Your task to perform on an android device: Clear the shopping cart on walmart.com. Add "razer blade" to the cart on walmart.com, then select checkout. Image 0: 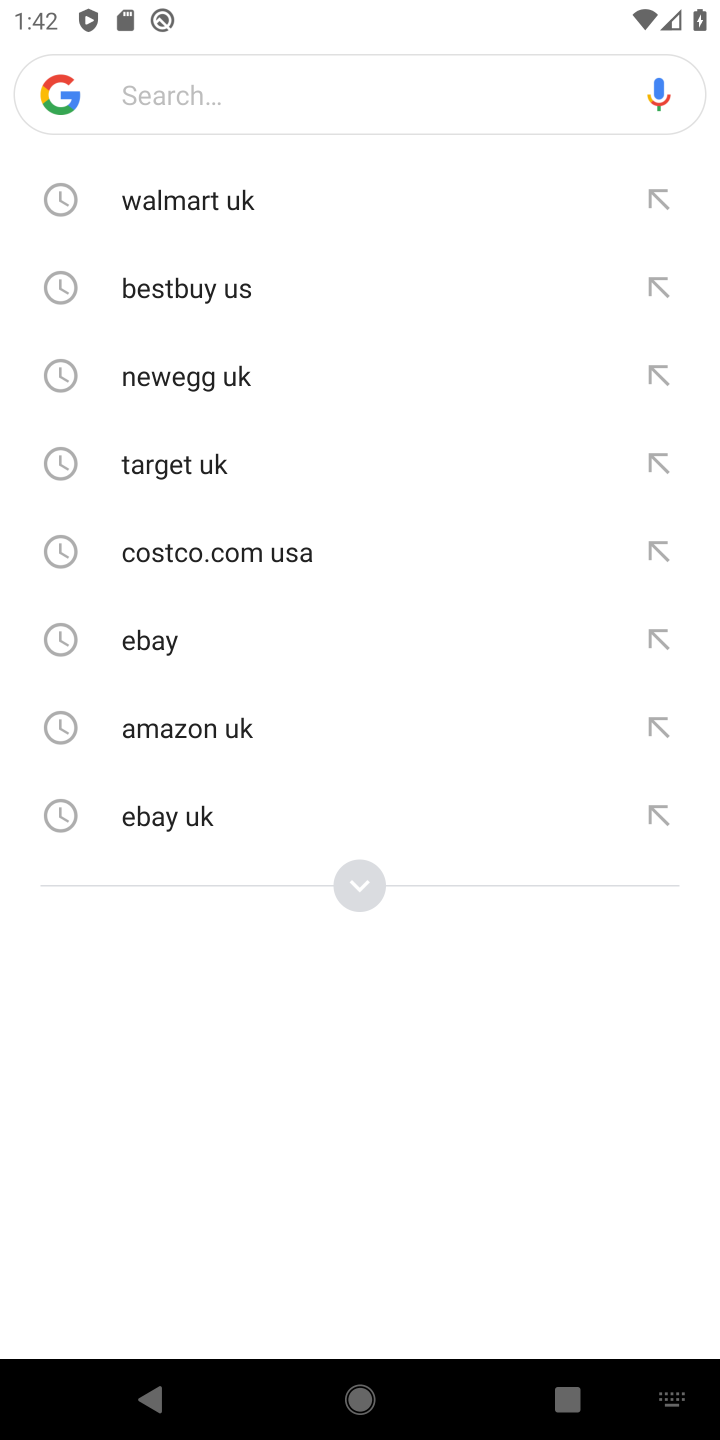
Step 0: click (239, 185)
Your task to perform on an android device: Clear the shopping cart on walmart.com. Add "razer blade" to the cart on walmart.com, then select checkout. Image 1: 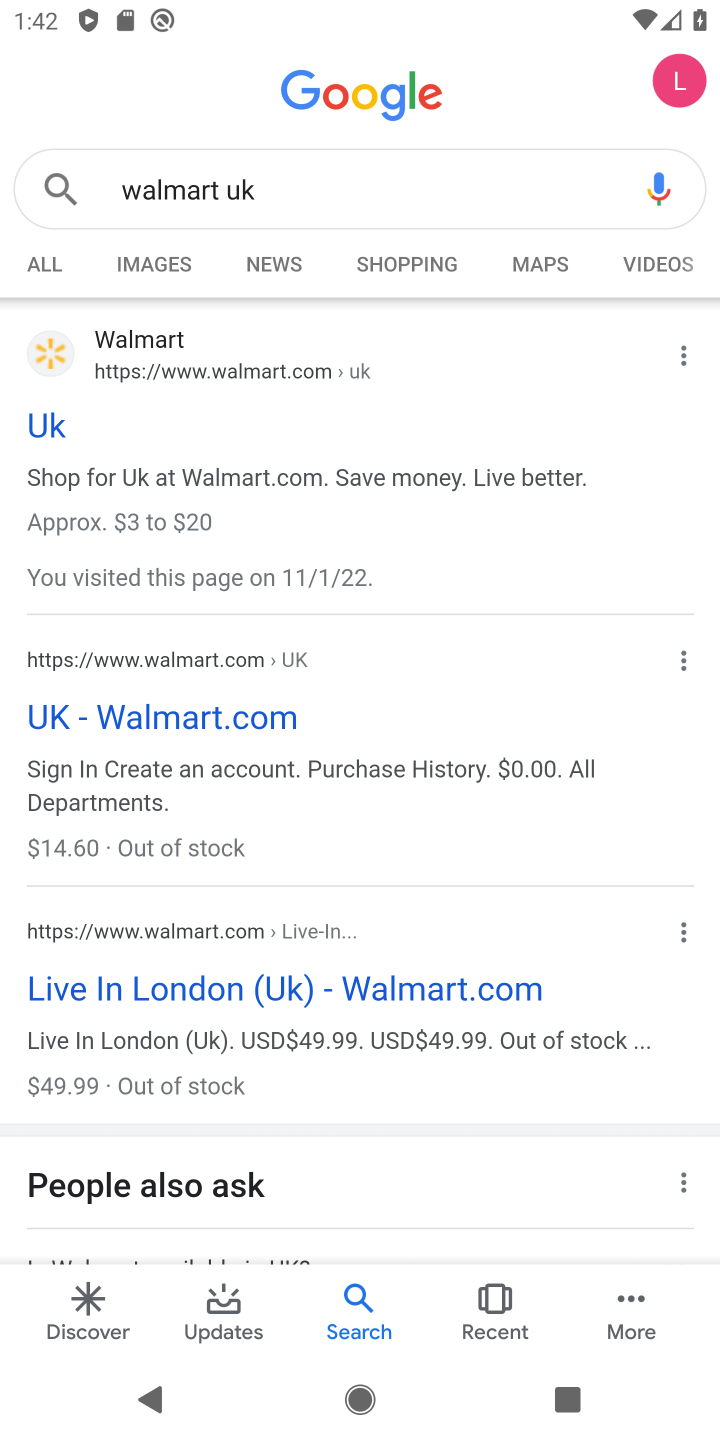
Step 1: click (80, 452)
Your task to perform on an android device: Clear the shopping cart on walmart.com. Add "razer blade" to the cart on walmart.com, then select checkout. Image 2: 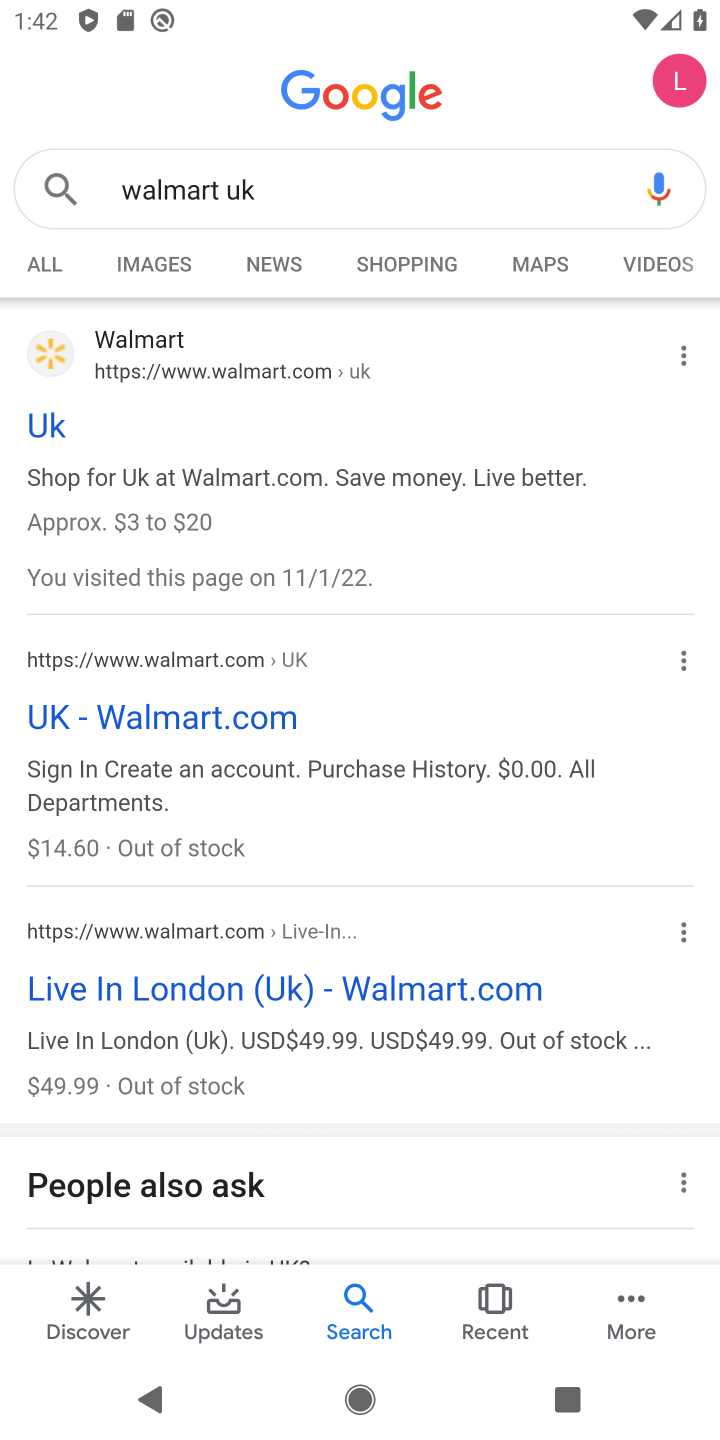
Step 2: click (54, 439)
Your task to perform on an android device: Clear the shopping cart on walmart.com. Add "razer blade" to the cart on walmart.com, then select checkout. Image 3: 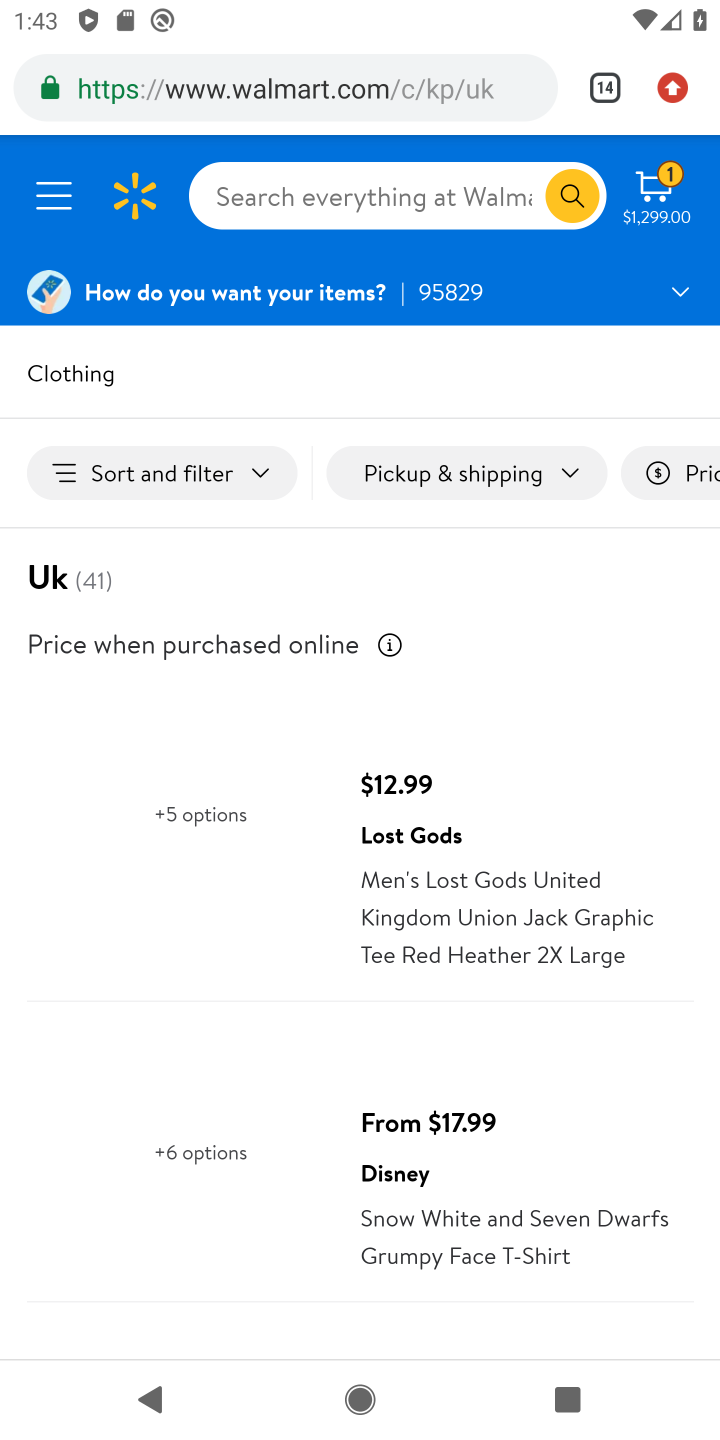
Step 3: click (339, 209)
Your task to perform on an android device: Clear the shopping cart on walmart.com. Add "razer blade" to the cart on walmart.com, then select checkout. Image 4: 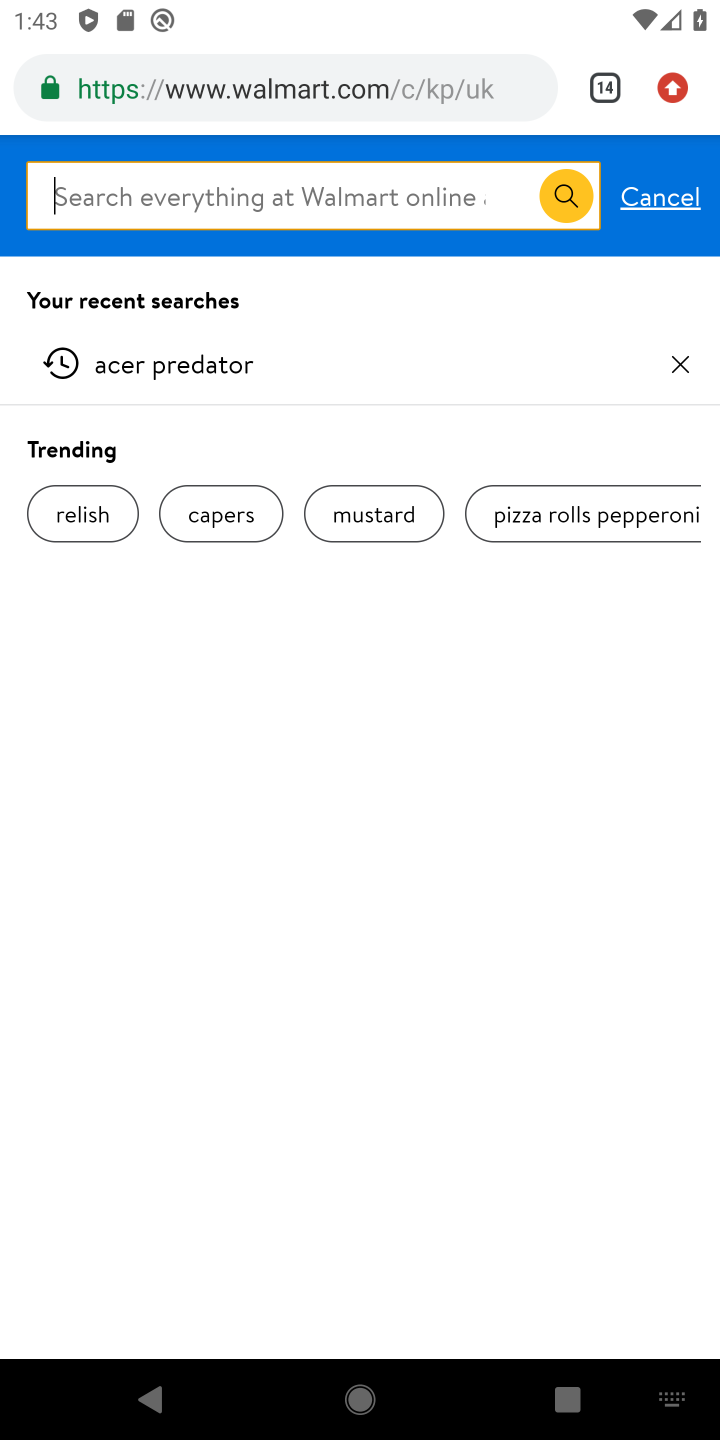
Step 4: type "razer blade"
Your task to perform on an android device: Clear the shopping cart on walmart.com. Add "razer blade" to the cart on walmart.com, then select checkout. Image 5: 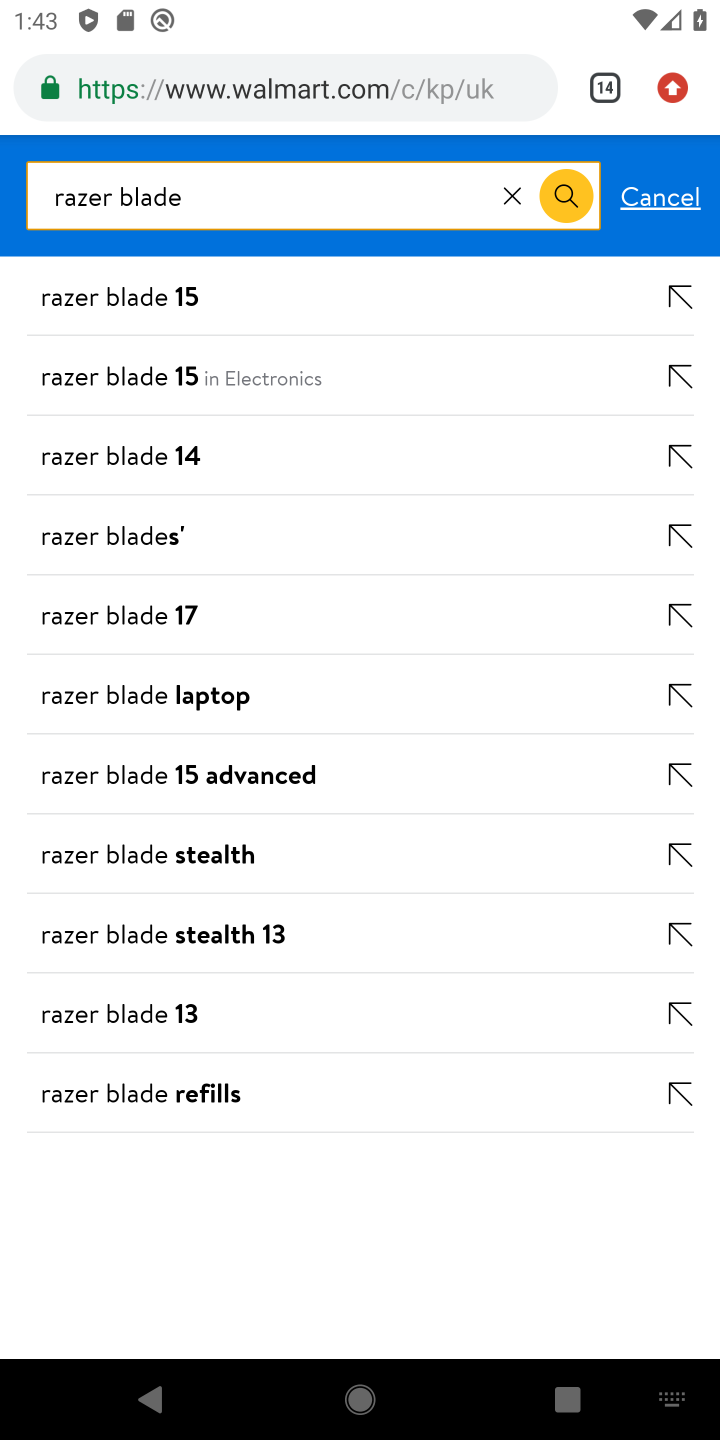
Step 5: click (127, 302)
Your task to perform on an android device: Clear the shopping cart on walmart.com. Add "razer blade" to the cart on walmart.com, then select checkout. Image 6: 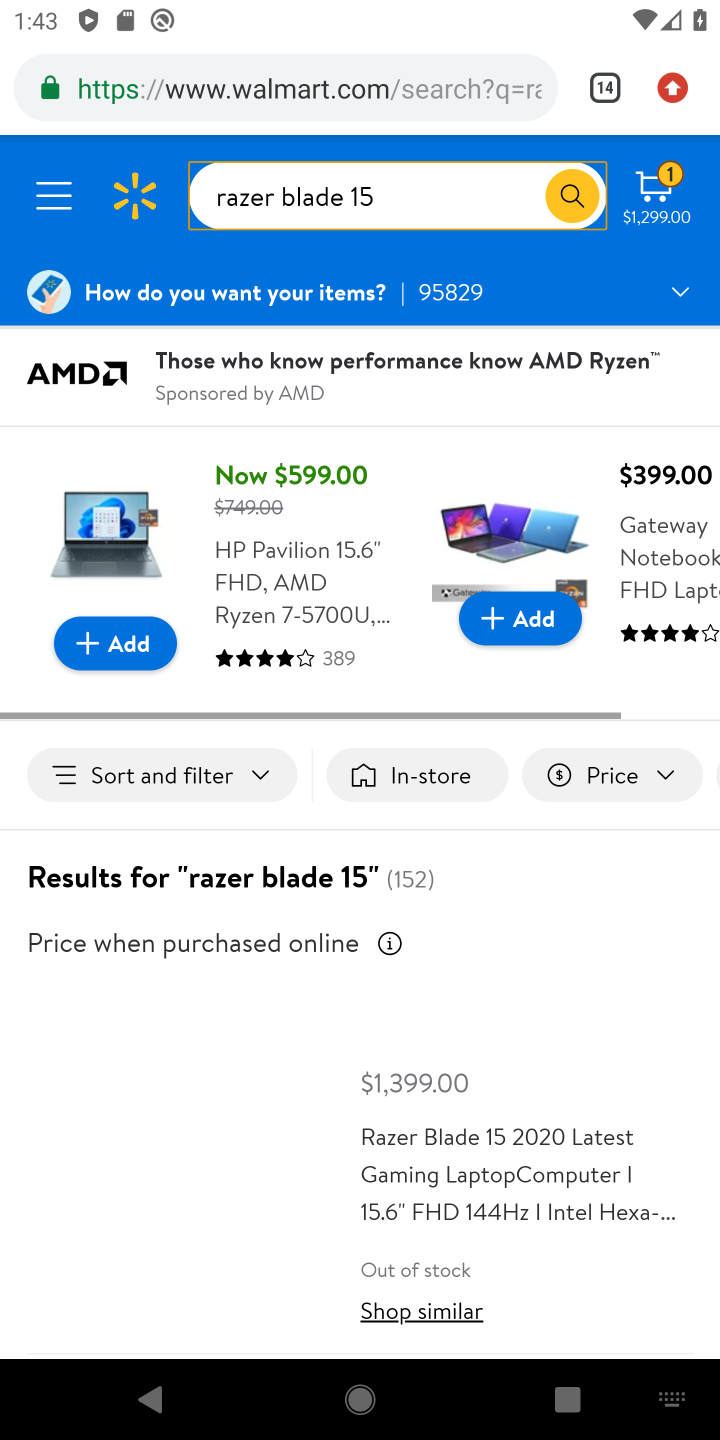
Step 6: click (411, 1138)
Your task to perform on an android device: Clear the shopping cart on walmart.com. Add "razer blade" to the cart on walmart.com, then select checkout. Image 7: 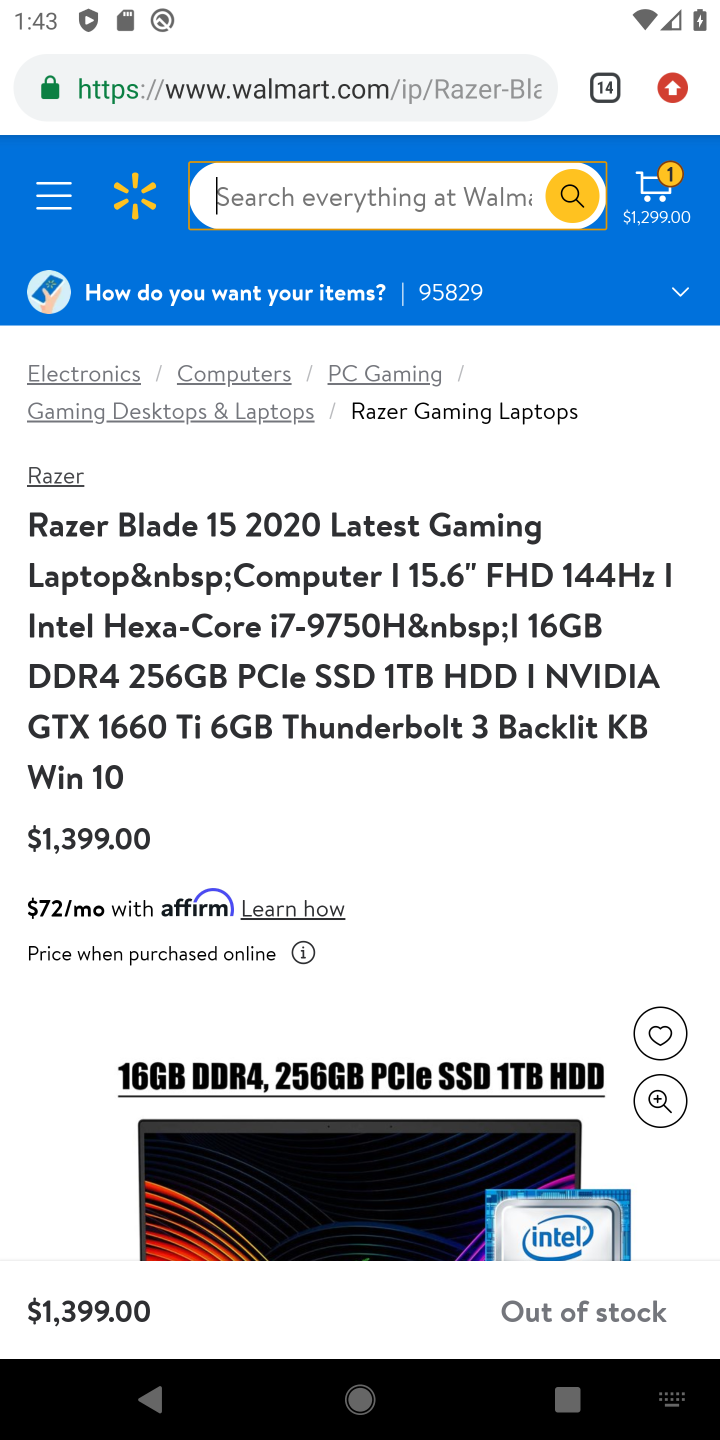
Step 7: drag from (411, 1138) to (550, 390)
Your task to perform on an android device: Clear the shopping cart on walmart.com. Add "razer blade" to the cart on walmart.com, then select checkout. Image 8: 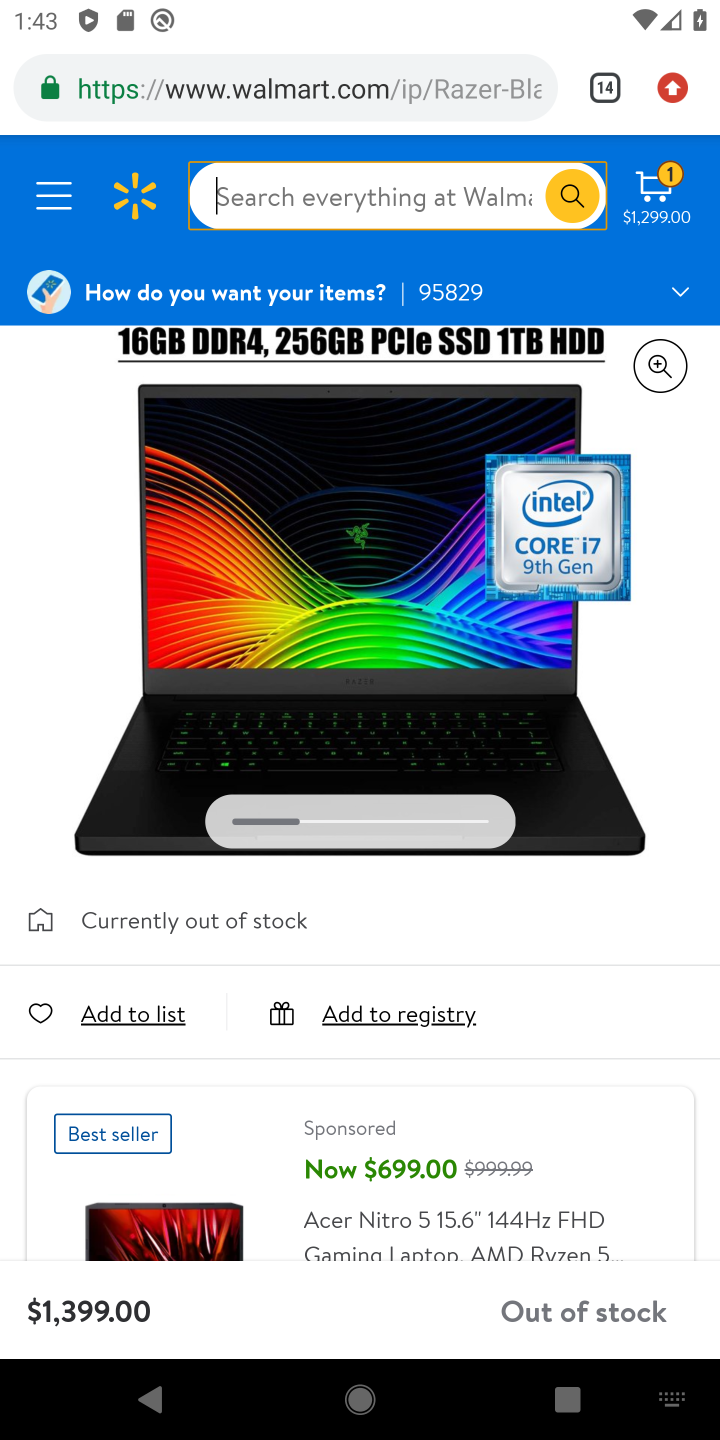
Step 8: drag from (522, 1078) to (580, 391)
Your task to perform on an android device: Clear the shopping cart on walmart.com. Add "razer blade" to the cart on walmart.com, then select checkout. Image 9: 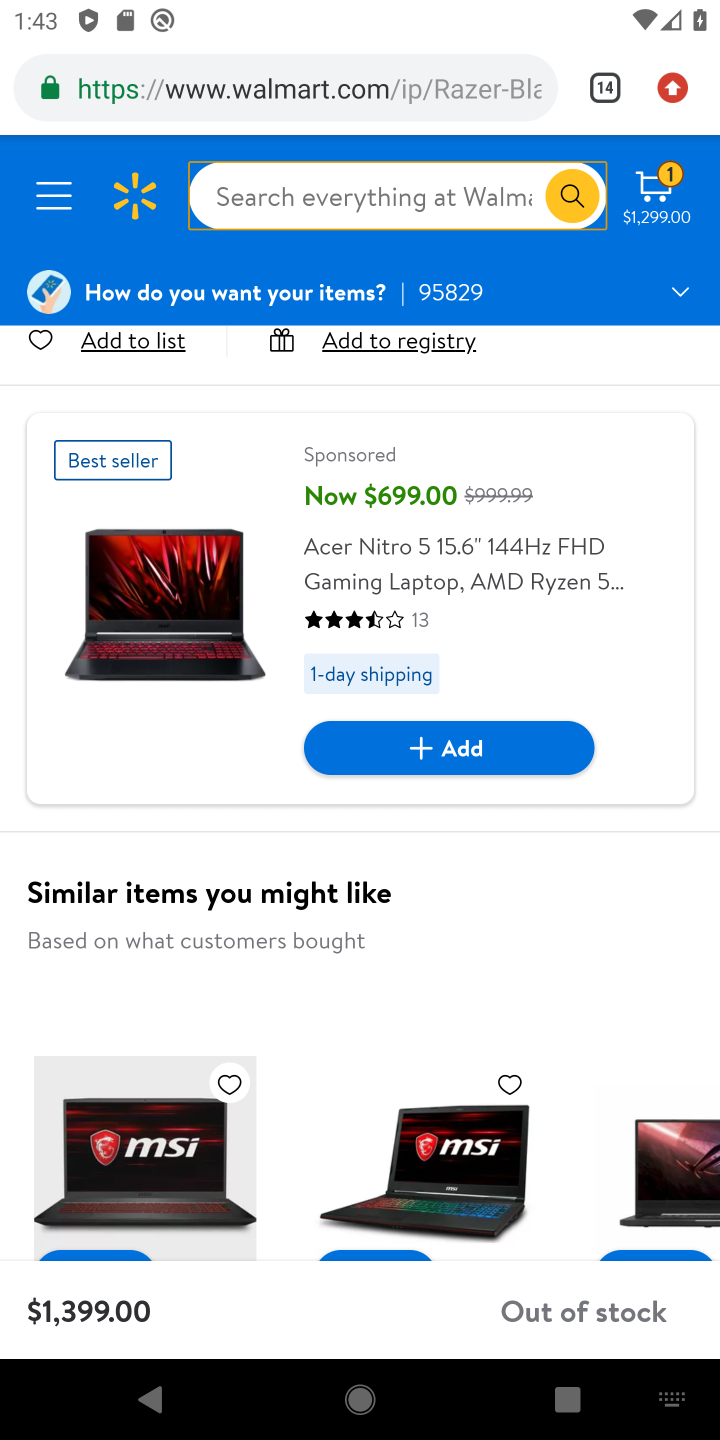
Step 9: click (469, 750)
Your task to perform on an android device: Clear the shopping cart on walmart.com. Add "razer blade" to the cart on walmart.com, then select checkout. Image 10: 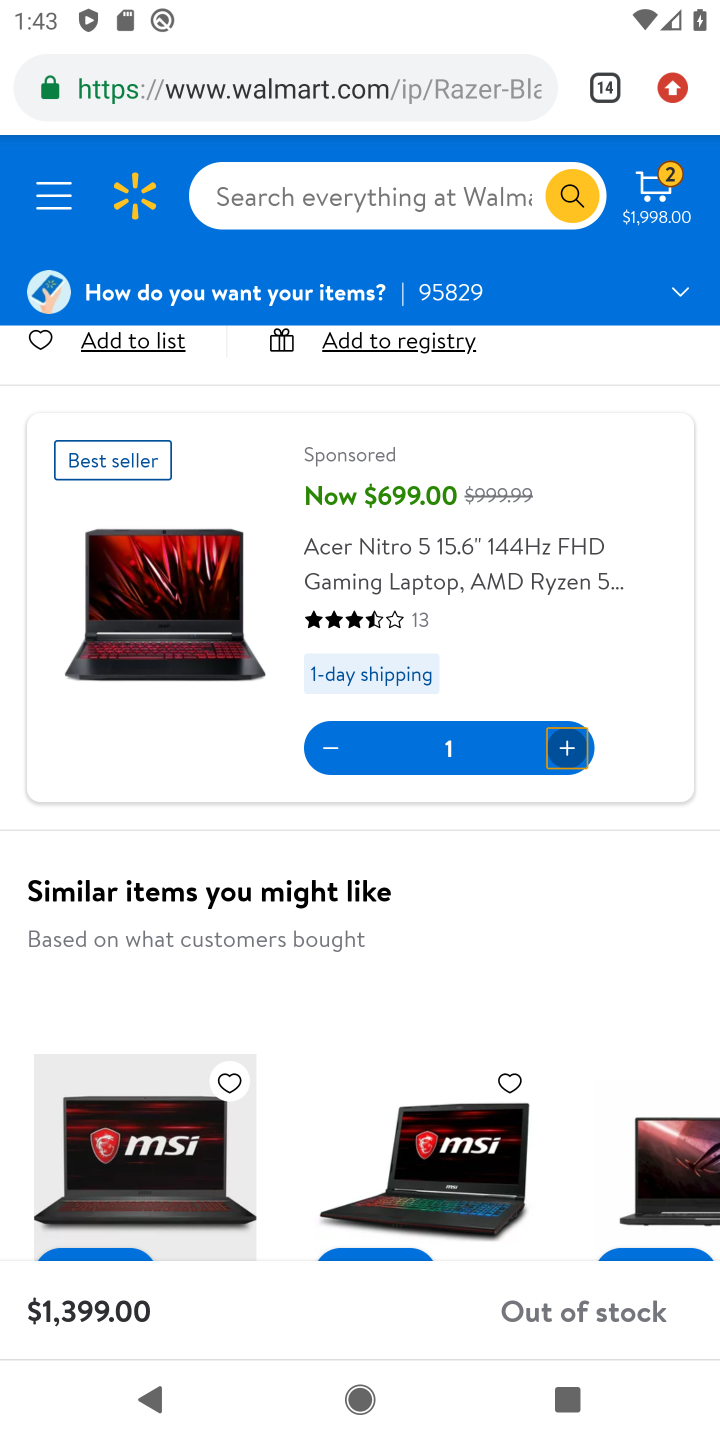
Step 10: task complete